Your task to perform on an android device: turn on wifi Image 0: 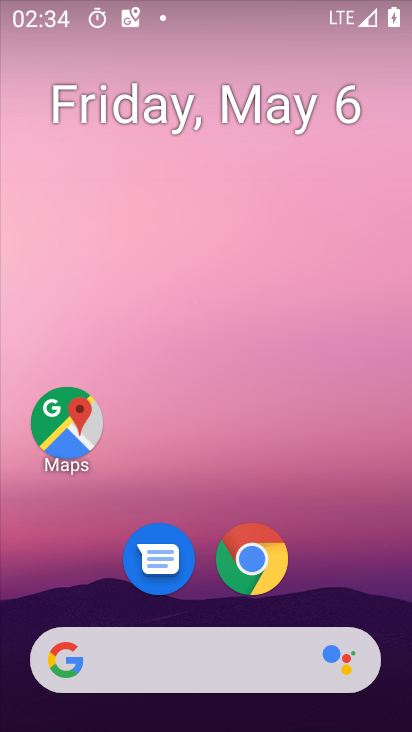
Step 0: drag from (324, 616) to (317, 33)
Your task to perform on an android device: turn on wifi Image 1: 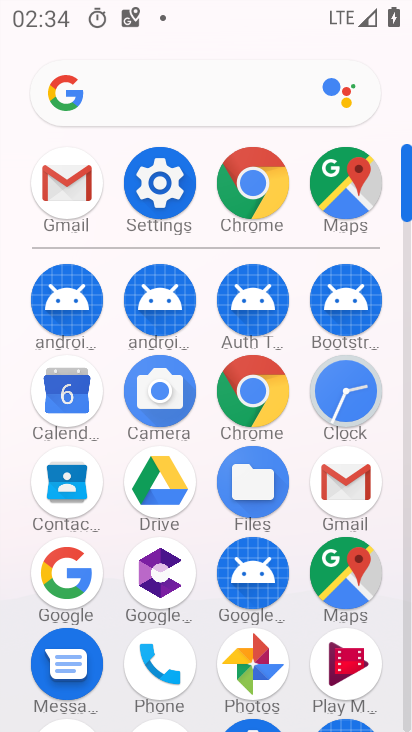
Step 1: click (175, 183)
Your task to perform on an android device: turn on wifi Image 2: 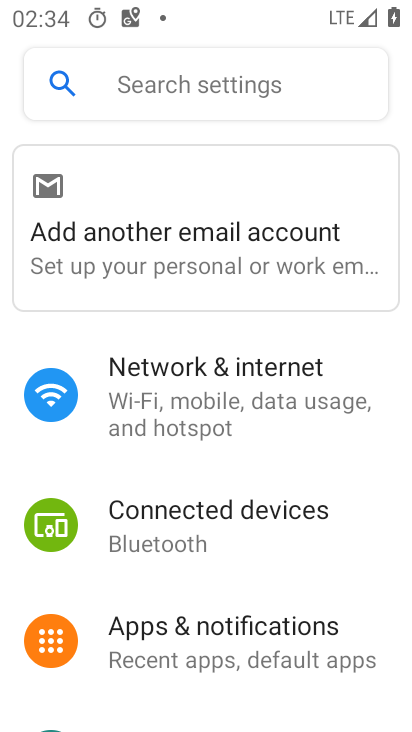
Step 2: click (200, 412)
Your task to perform on an android device: turn on wifi Image 3: 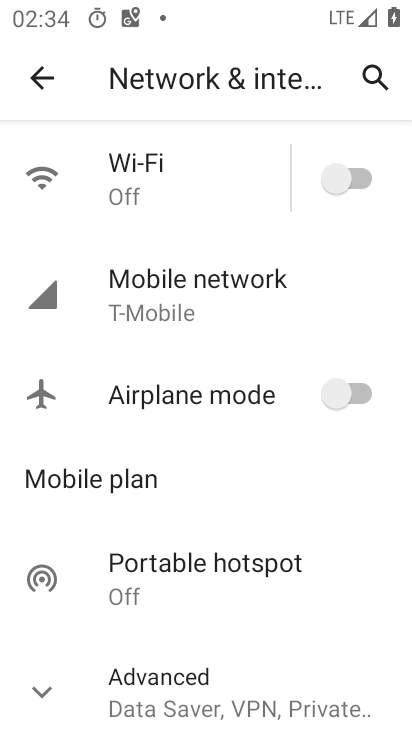
Step 3: click (362, 178)
Your task to perform on an android device: turn on wifi Image 4: 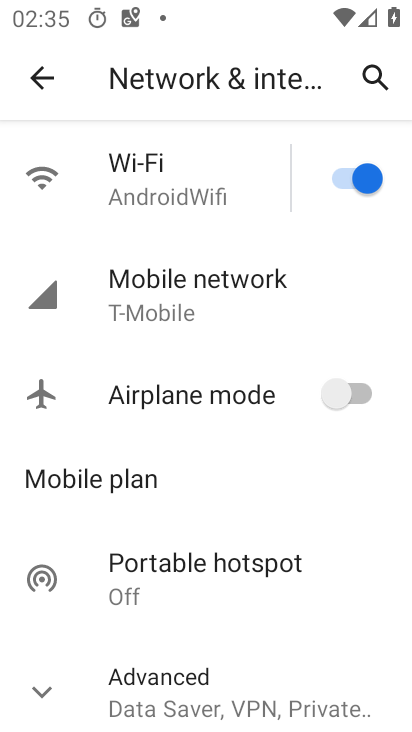
Step 4: task complete